Your task to perform on an android device: What's on my calendar tomorrow? Image 0: 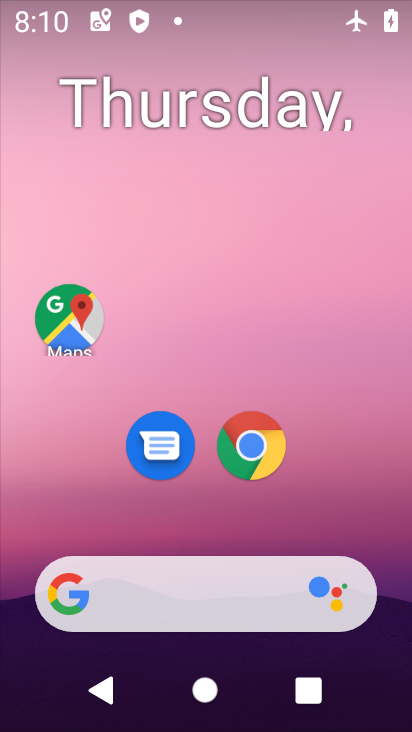
Step 0: drag from (398, 620) to (329, 78)
Your task to perform on an android device: What's on my calendar tomorrow? Image 1: 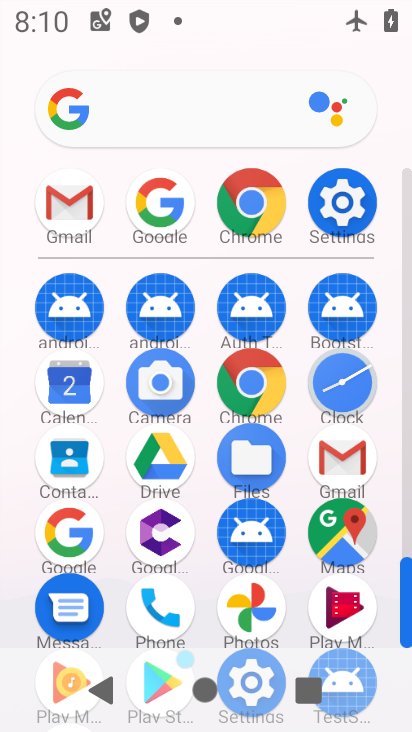
Step 1: click (75, 374)
Your task to perform on an android device: What's on my calendar tomorrow? Image 2: 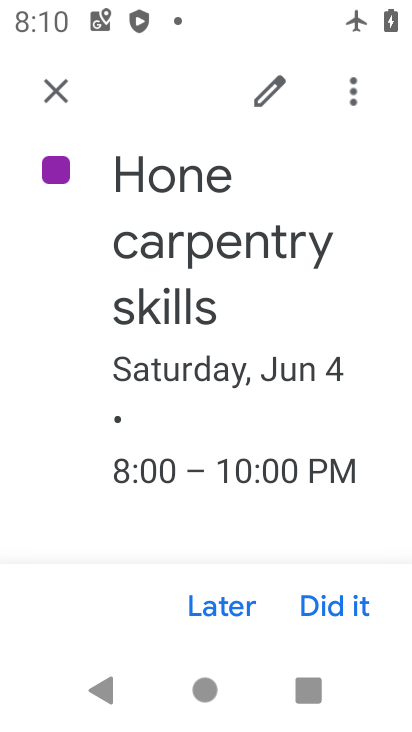
Step 2: press back button
Your task to perform on an android device: What's on my calendar tomorrow? Image 3: 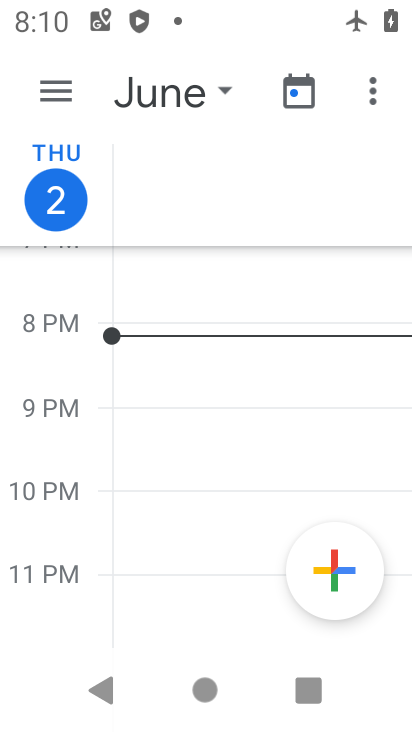
Step 3: click (154, 120)
Your task to perform on an android device: What's on my calendar tomorrow? Image 4: 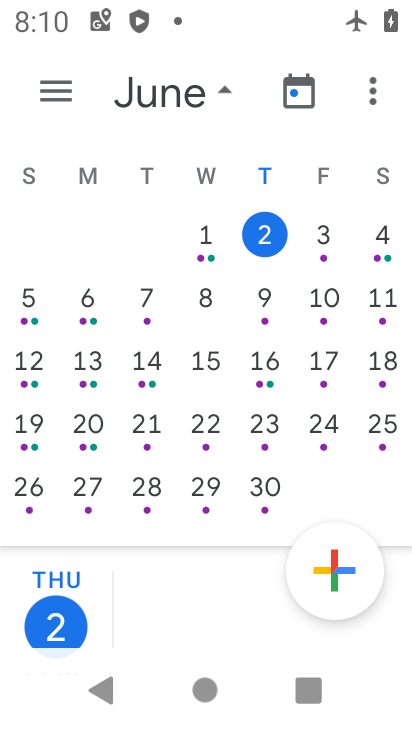
Step 4: click (381, 242)
Your task to perform on an android device: What's on my calendar tomorrow? Image 5: 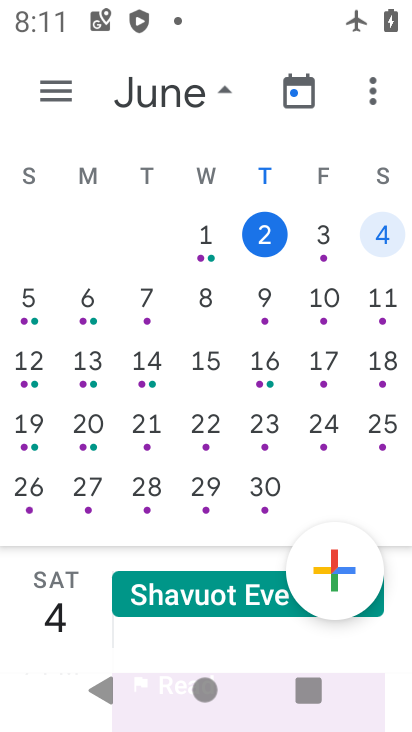
Step 5: click (203, 587)
Your task to perform on an android device: What's on my calendar tomorrow? Image 6: 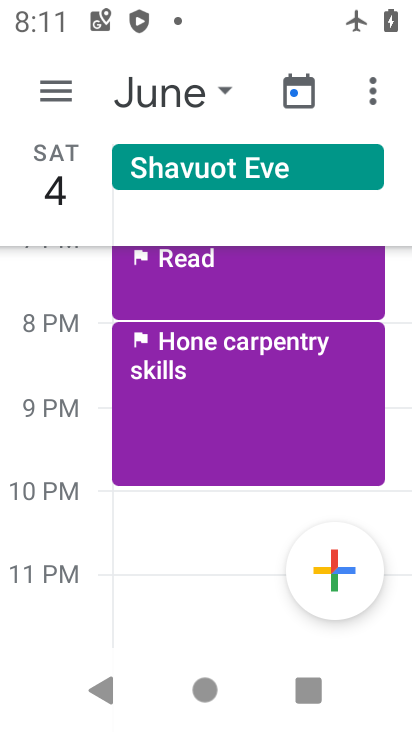
Step 6: click (202, 369)
Your task to perform on an android device: What's on my calendar tomorrow? Image 7: 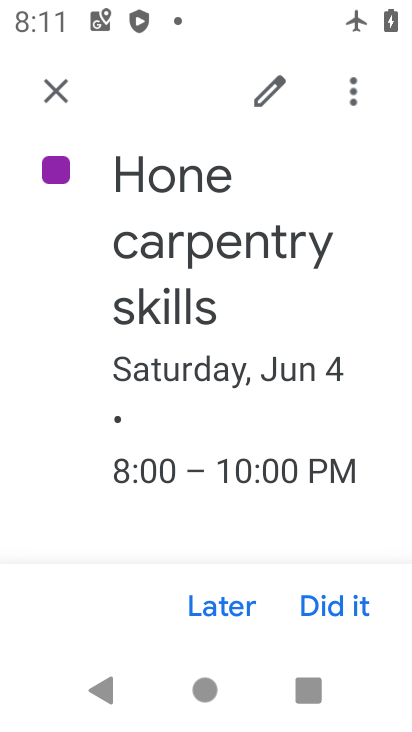
Step 7: task complete